Your task to perform on an android device: Open my contact list Image 0: 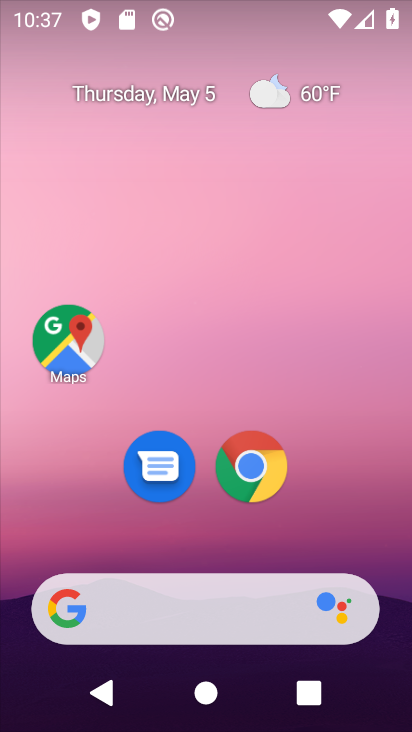
Step 0: drag from (161, 570) to (244, 222)
Your task to perform on an android device: Open my contact list Image 1: 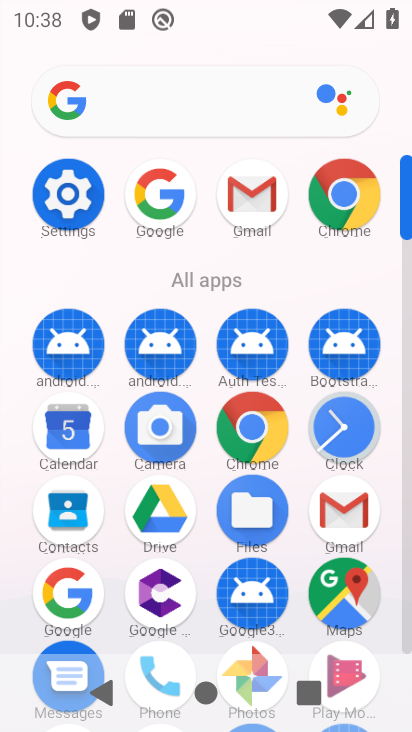
Step 1: click (67, 531)
Your task to perform on an android device: Open my contact list Image 2: 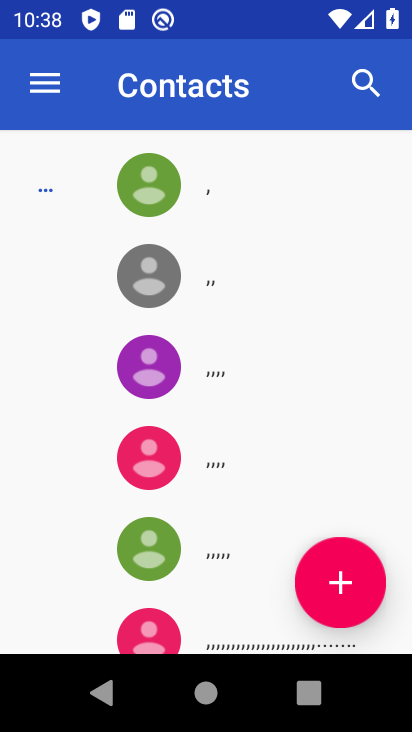
Step 2: task complete